Your task to perform on an android device: What's on my calendar tomorrow? Image 0: 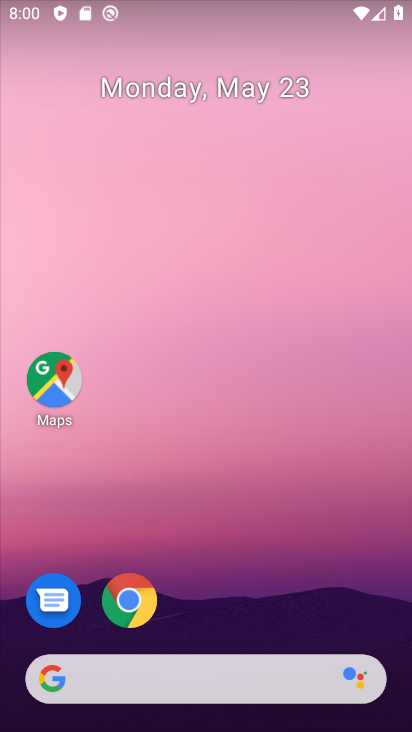
Step 0: drag from (200, 386) to (125, 62)
Your task to perform on an android device: What's on my calendar tomorrow? Image 1: 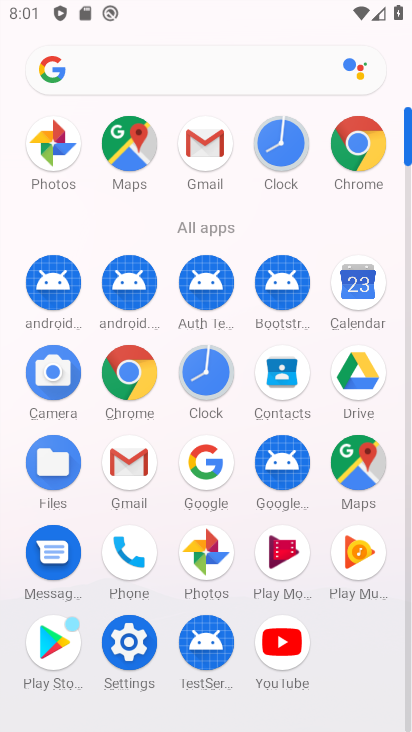
Step 1: click (354, 291)
Your task to perform on an android device: What's on my calendar tomorrow? Image 2: 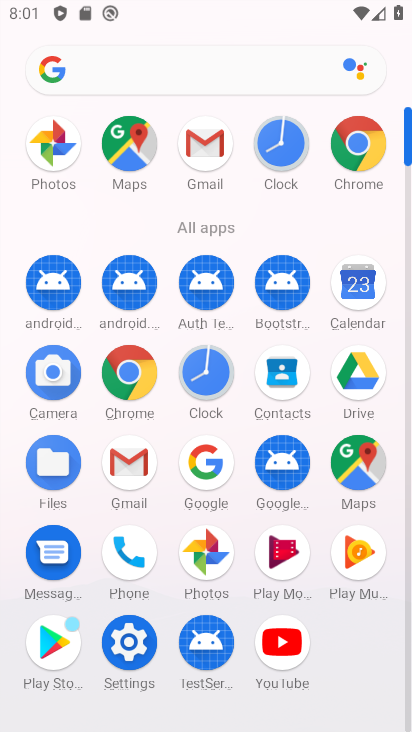
Step 2: click (354, 291)
Your task to perform on an android device: What's on my calendar tomorrow? Image 3: 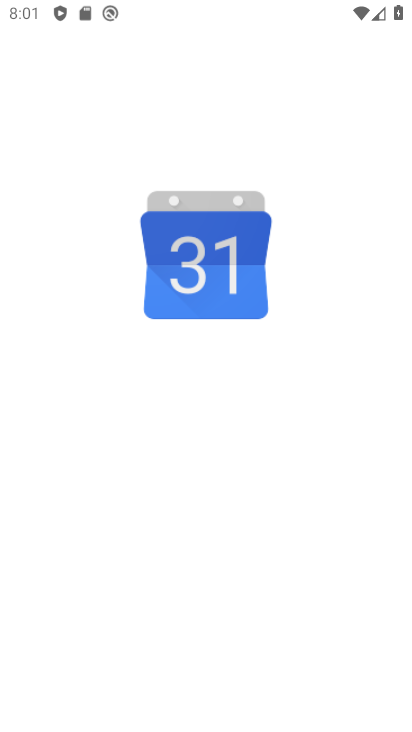
Step 3: click (352, 287)
Your task to perform on an android device: What's on my calendar tomorrow? Image 4: 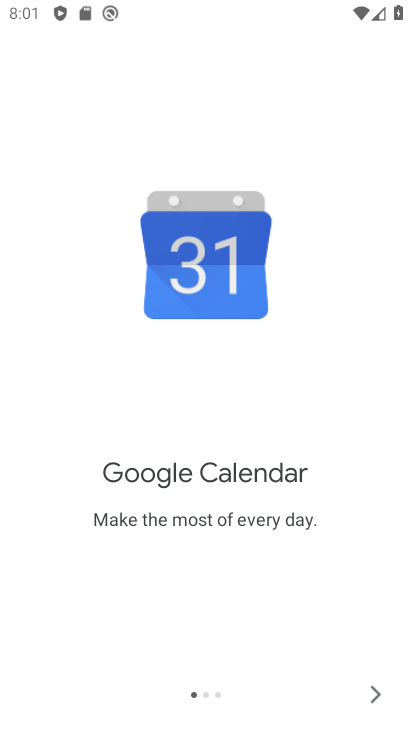
Step 4: click (352, 287)
Your task to perform on an android device: What's on my calendar tomorrow? Image 5: 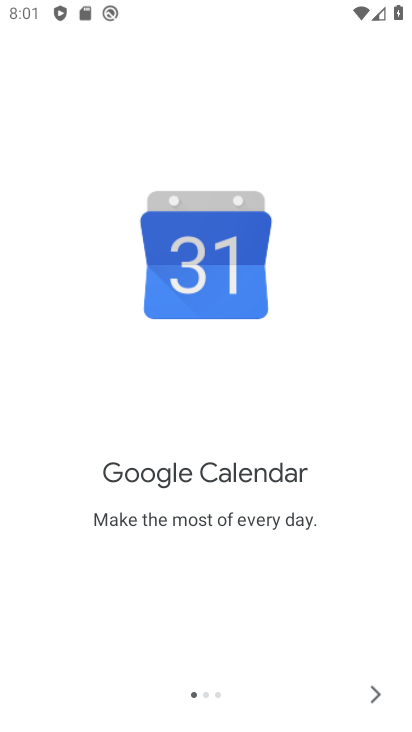
Step 5: click (372, 687)
Your task to perform on an android device: What's on my calendar tomorrow? Image 6: 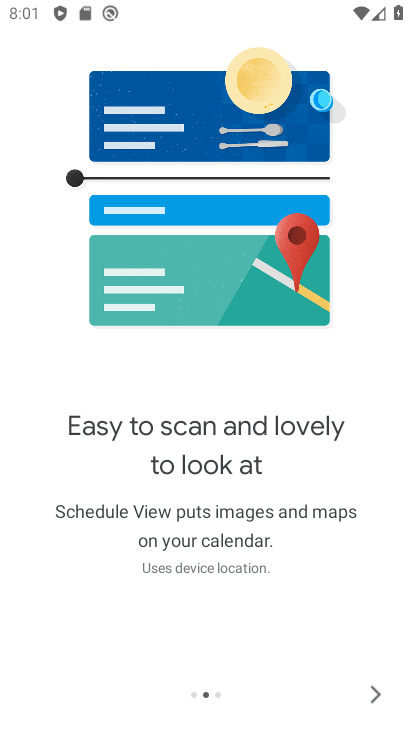
Step 6: click (371, 688)
Your task to perform on an android device: What's on my calendar tomorrow? Image 7: 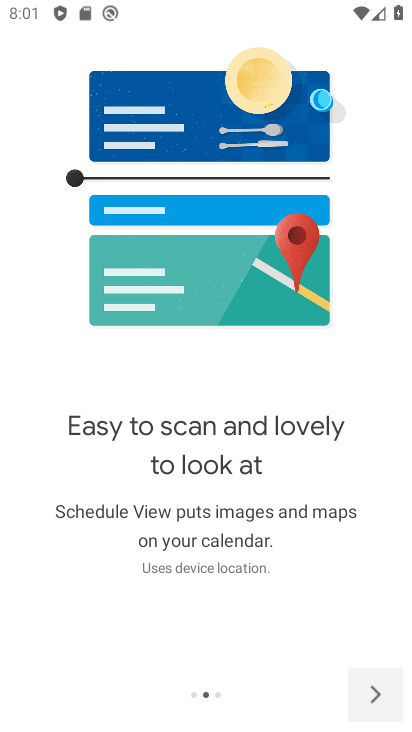
Step 7: click (374, 694)
Your task to perform on an android device: What's on my calendar tomorrow? Image 8: 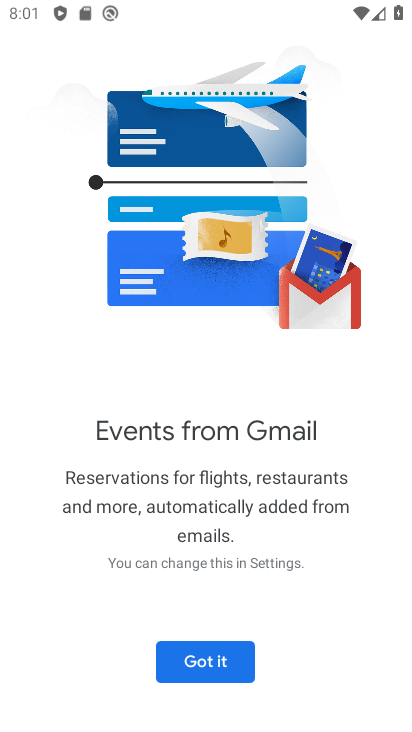
Step 8: click (217, 658)
Your task to perform on an android device: What's on my calendar tomorrow? Image 9: 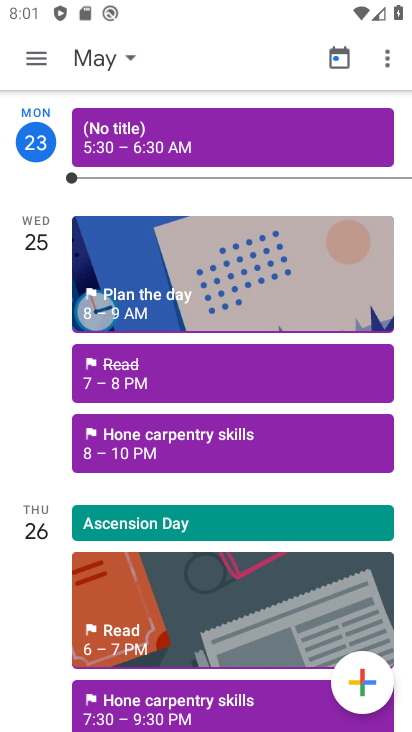
Step 9: click (143, 263)
Your task to perform on an android device: What's on my calendar tomorrow? Image 10: 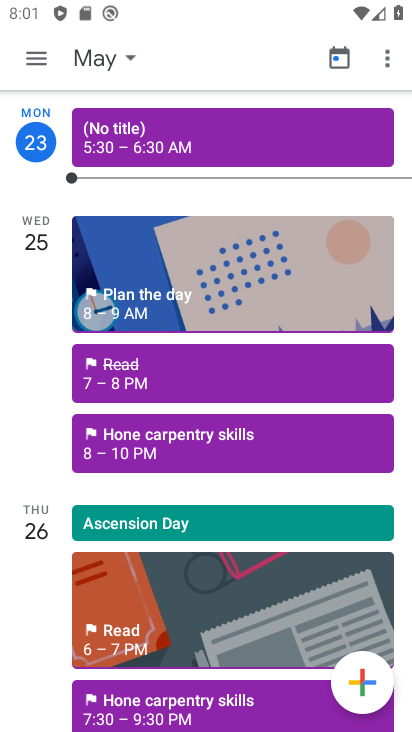
Step 10: click (143, 263)
Your task to perform on an android device: What's on my calendar tomorrow? Image 11: 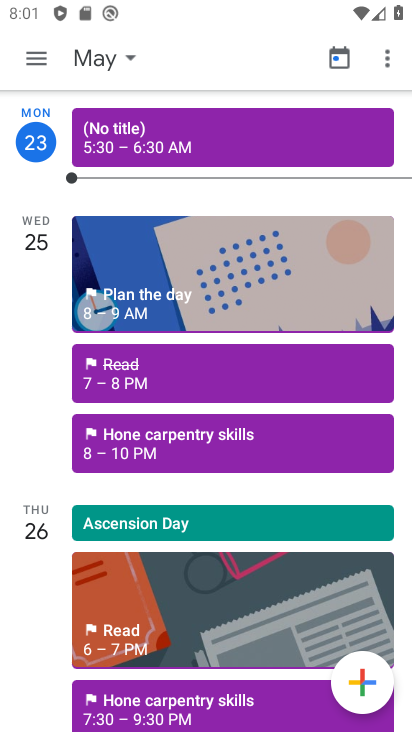
Step 11: click (145, 262)
Your task to perform on an android device: What's on my calendar tomorrow? Image 12: 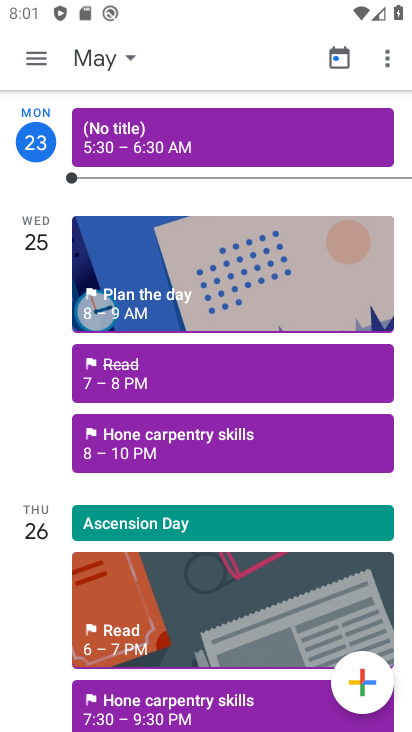
Step 12: click (143, 264)
Your task to perform on an android device: What's on my calendar tomorrow? Image 13: 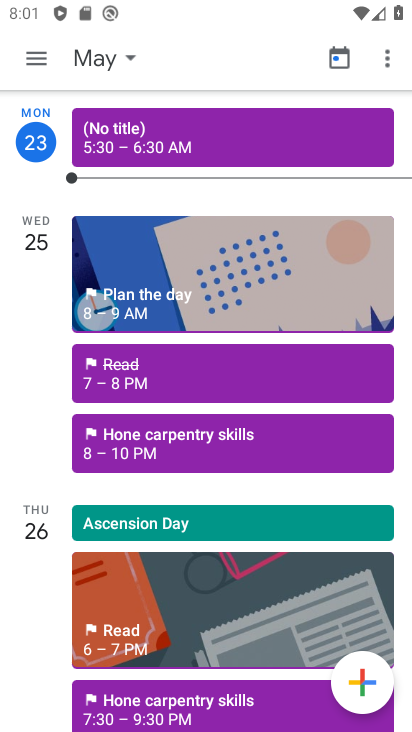
Step 13: click (153, 276)
Your task to perform on an android device: What's on my calendar tomorrow? Image 14: 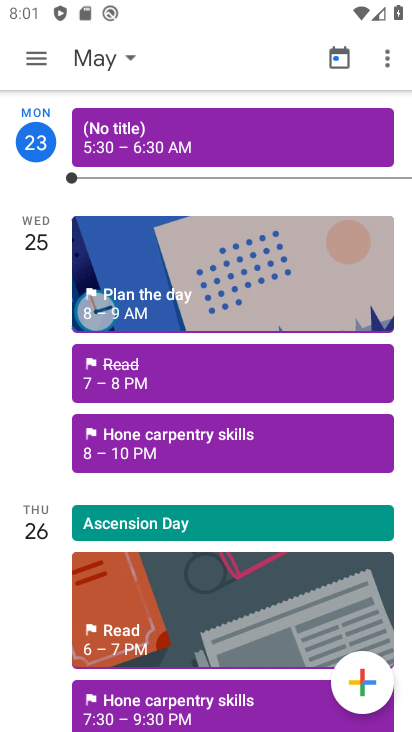
Step 14: click (153, 275)
Your task to perform on an android device: What's on my calendar tomorrow? Image 15: 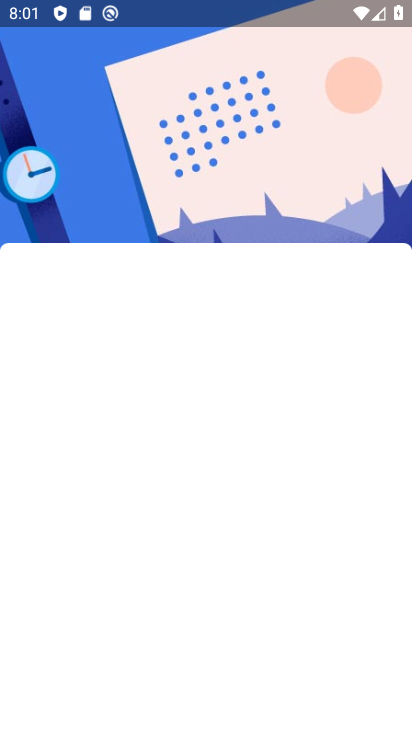
Step 15: click (153, 275)
Your task to perform on an android device: What's on my calendar tomorrow? Image 16: 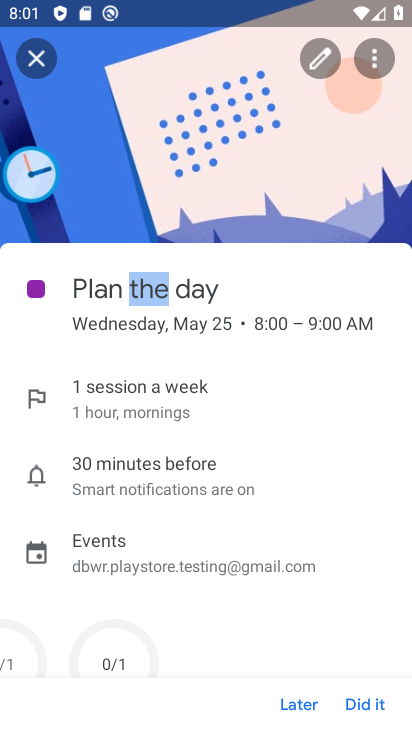
Step 16: click (153, 273)
Your task to perform on an android device: What's on my calendar tomorrow? Image 17: 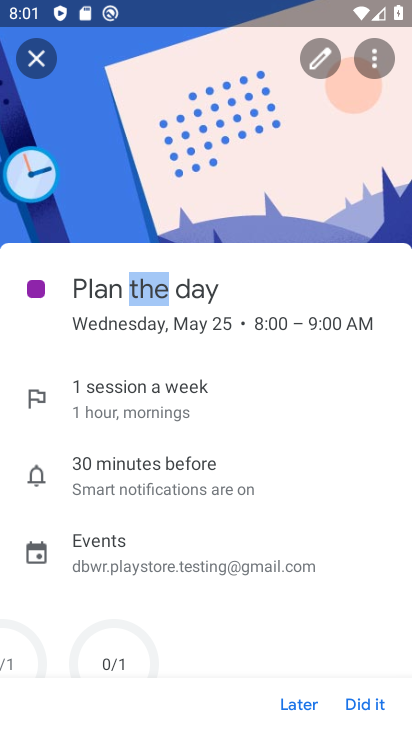
Step 17: click (150, 271)
Your task to perform on an android device: What's on my calendar tomorrow? Image 18: 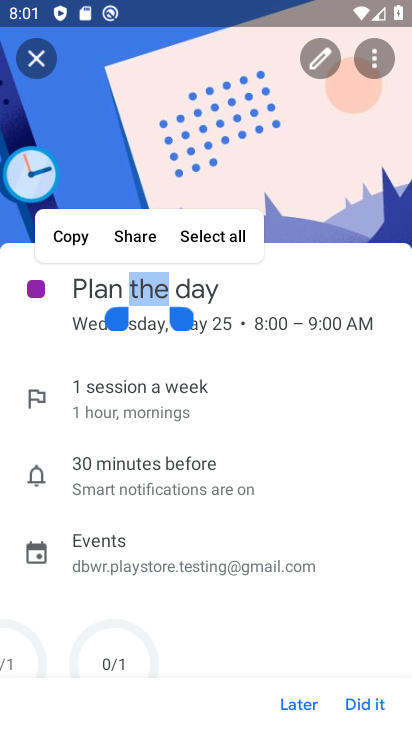
Step 18: task complete